Your task to perform on an android device: check google app version Image 0: 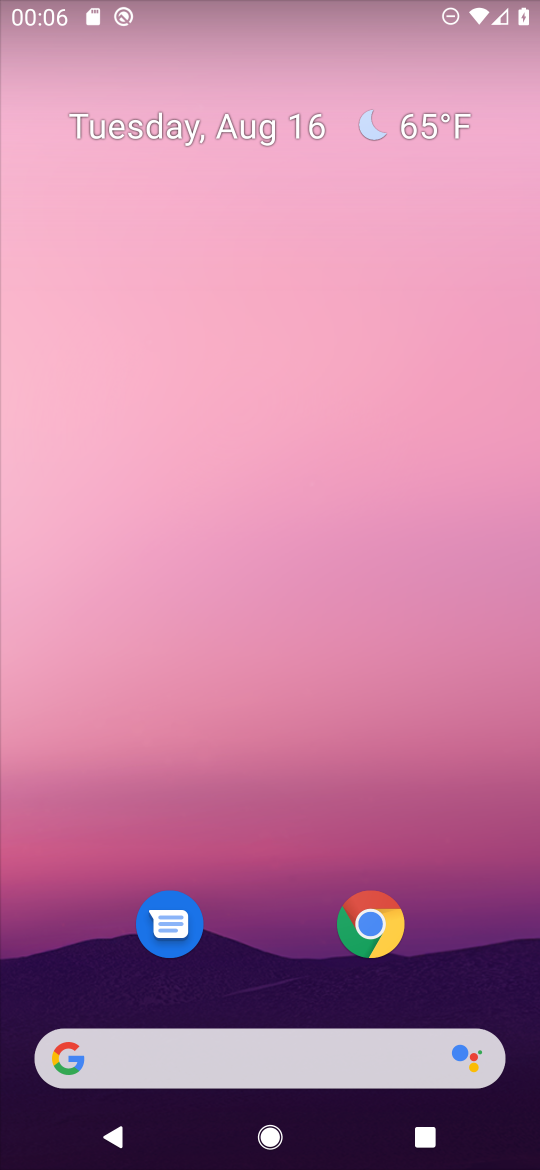
Step 0: drag from (480, 954) to (466, 294)
Your task to perform on an android device: check google app version Image 1: 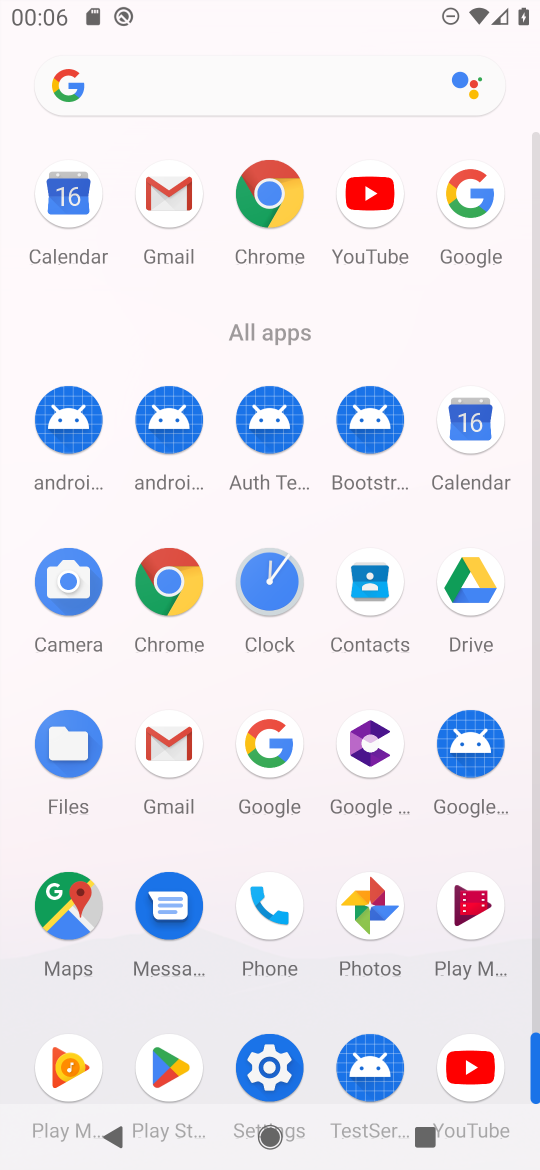
Step 1: click (250, 740)
Your task to perform on an android device: check google app version Image 2: 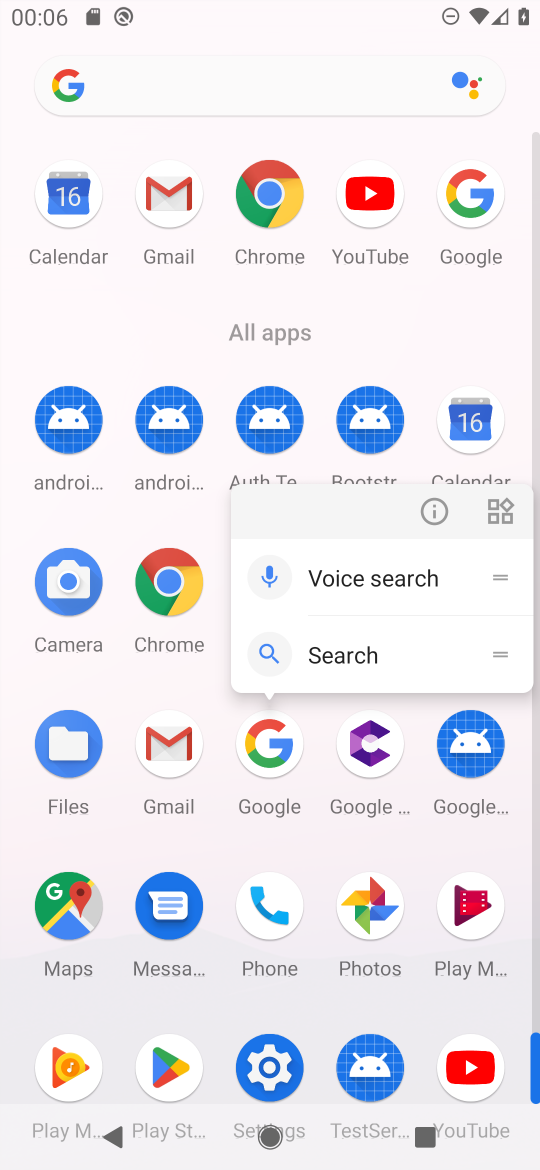
Step 2: click (432, 524)
Your task to perform on an android device: check google app version Image 3: 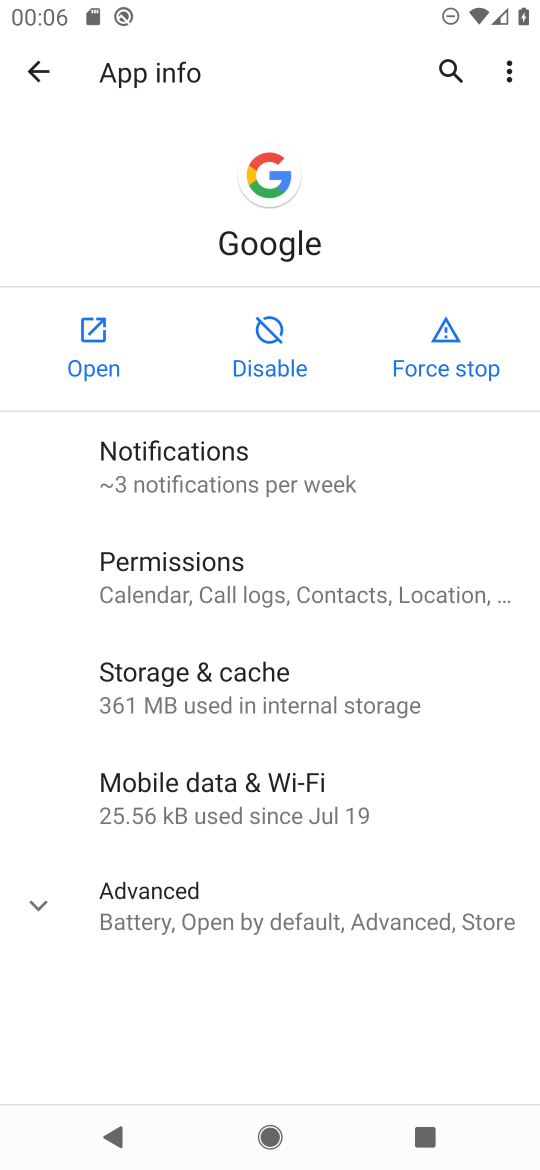
Step 3: click (37, 901)
Your task to perform on an android device: check google app version Image 4: 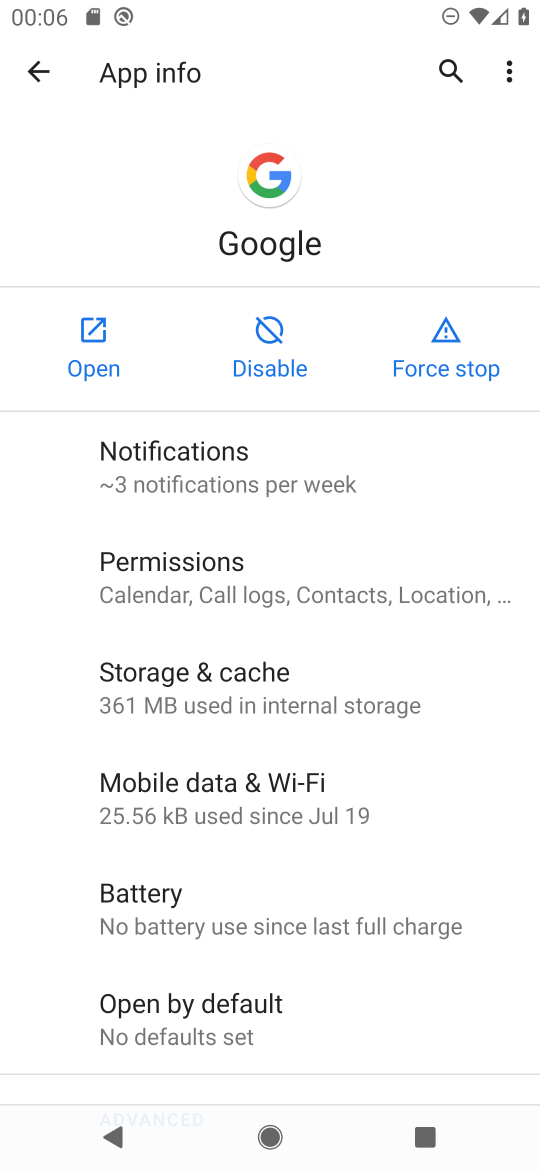
Step 4: task complete